Your task to perform on an android device: change the clock display to show seconds Image 0: 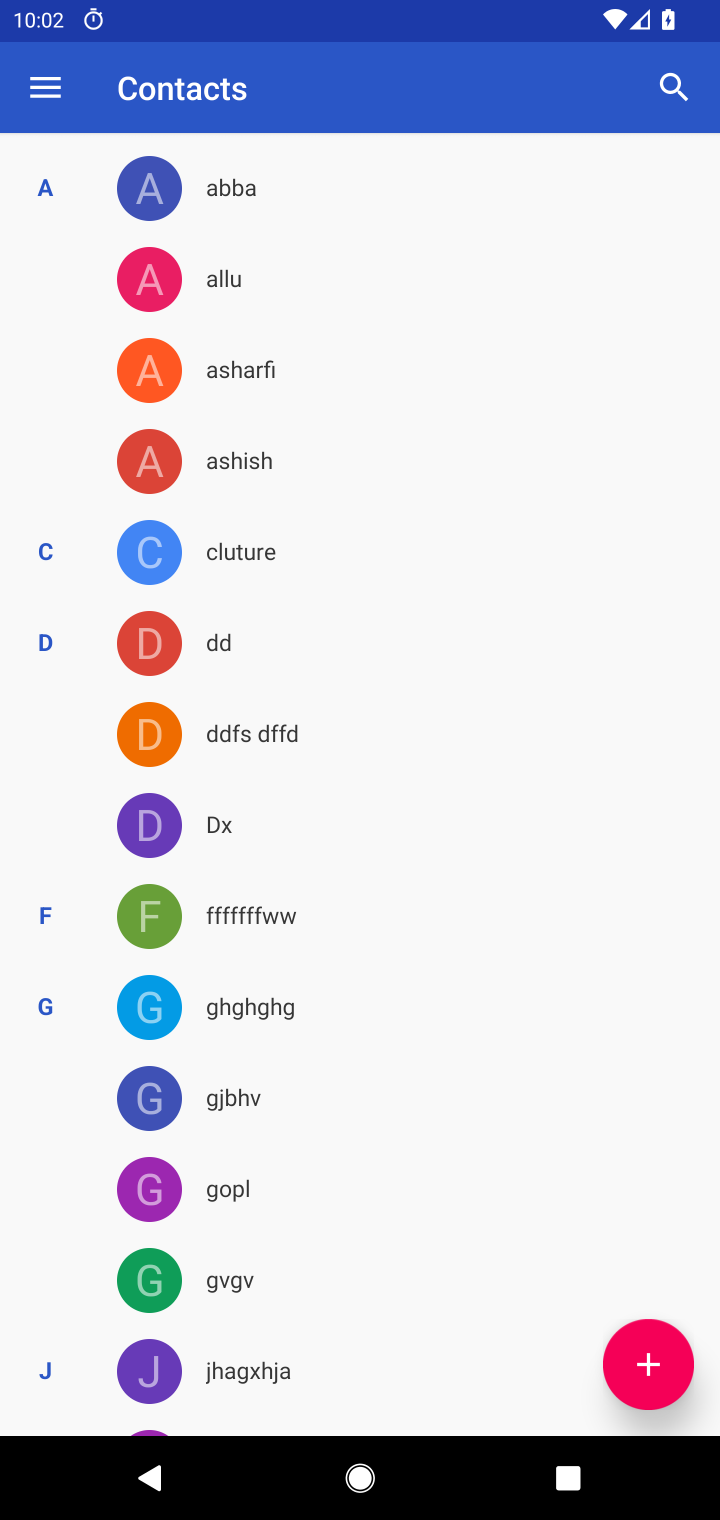
Step 0: press home button
Your task to perform on an android device: change the clock display to show seconds Image 1: 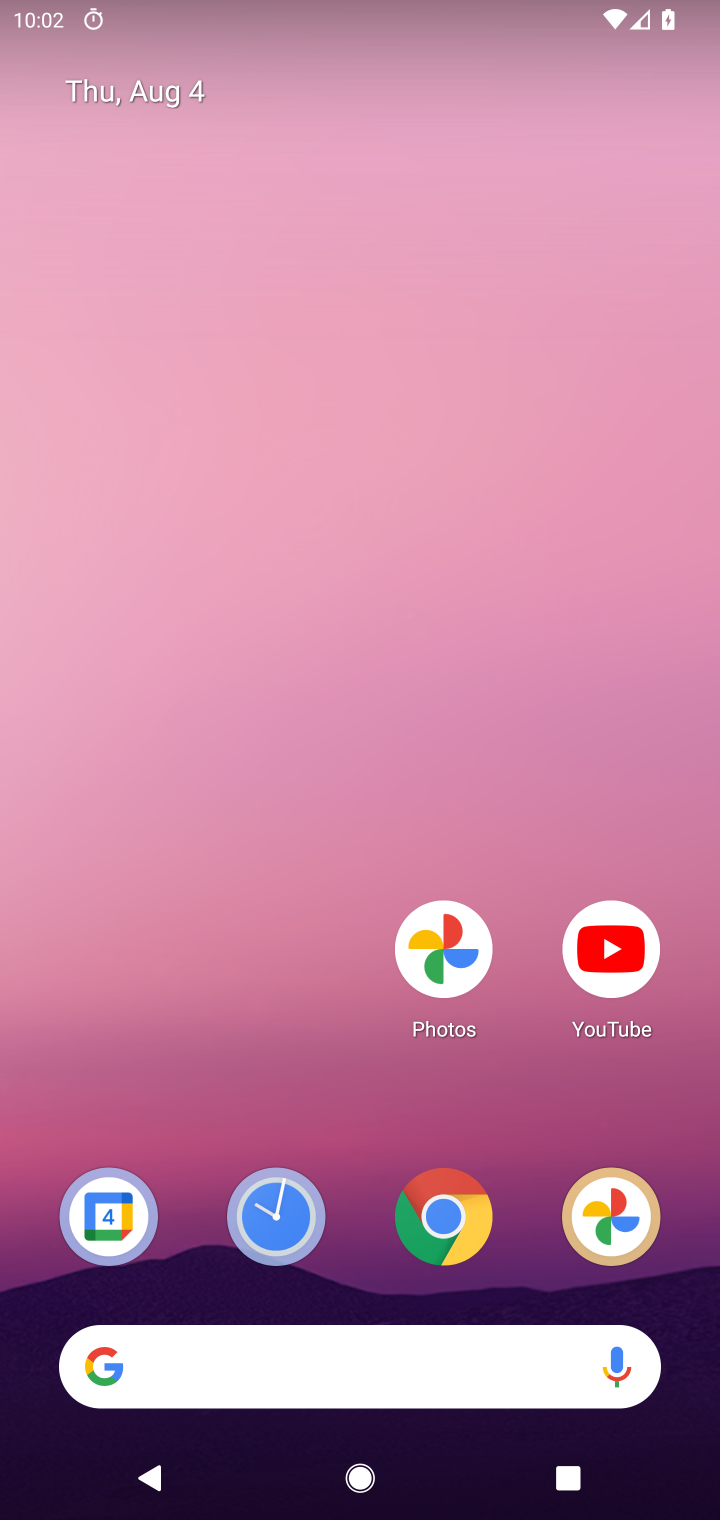
Step 1: drag from (340, 1278) to (340, 188)
Your task to perform on an android device: change the clock display to show seconds Image 2: 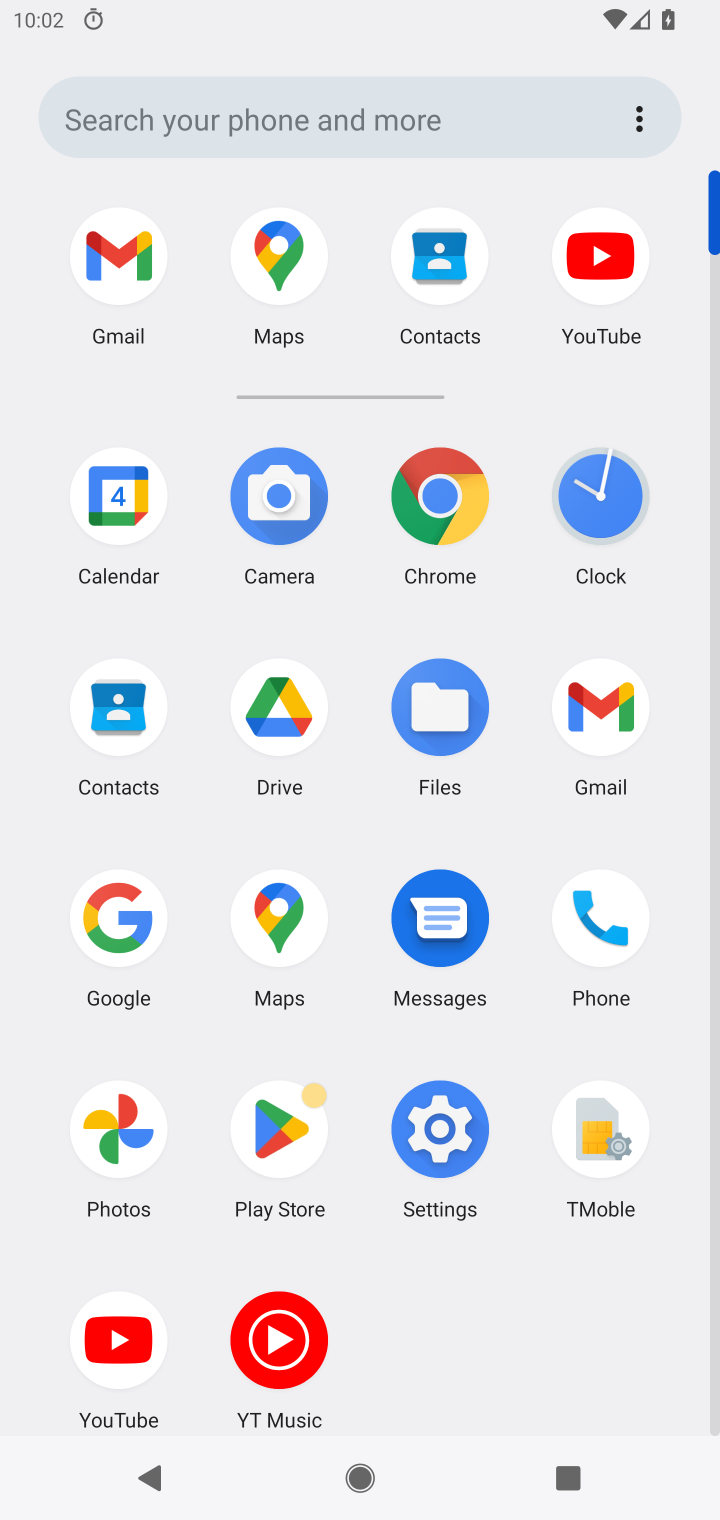
Step 2: click (604, 518)
Your task to perform on an android device: change the clock display to show seconds Image 3: 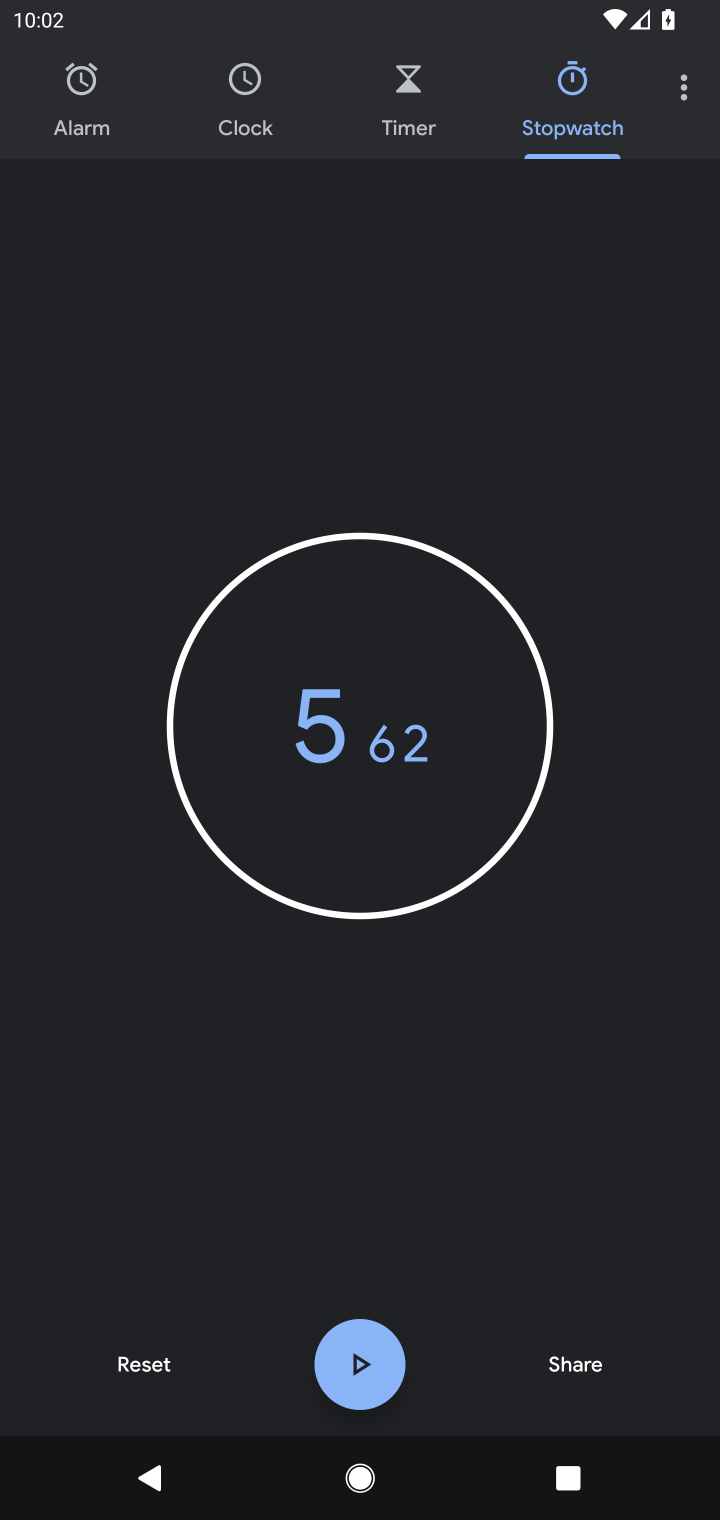
Step 3: click (685, 85)
Your task to perform on an android device: change the clock display to show seconds Image 4: 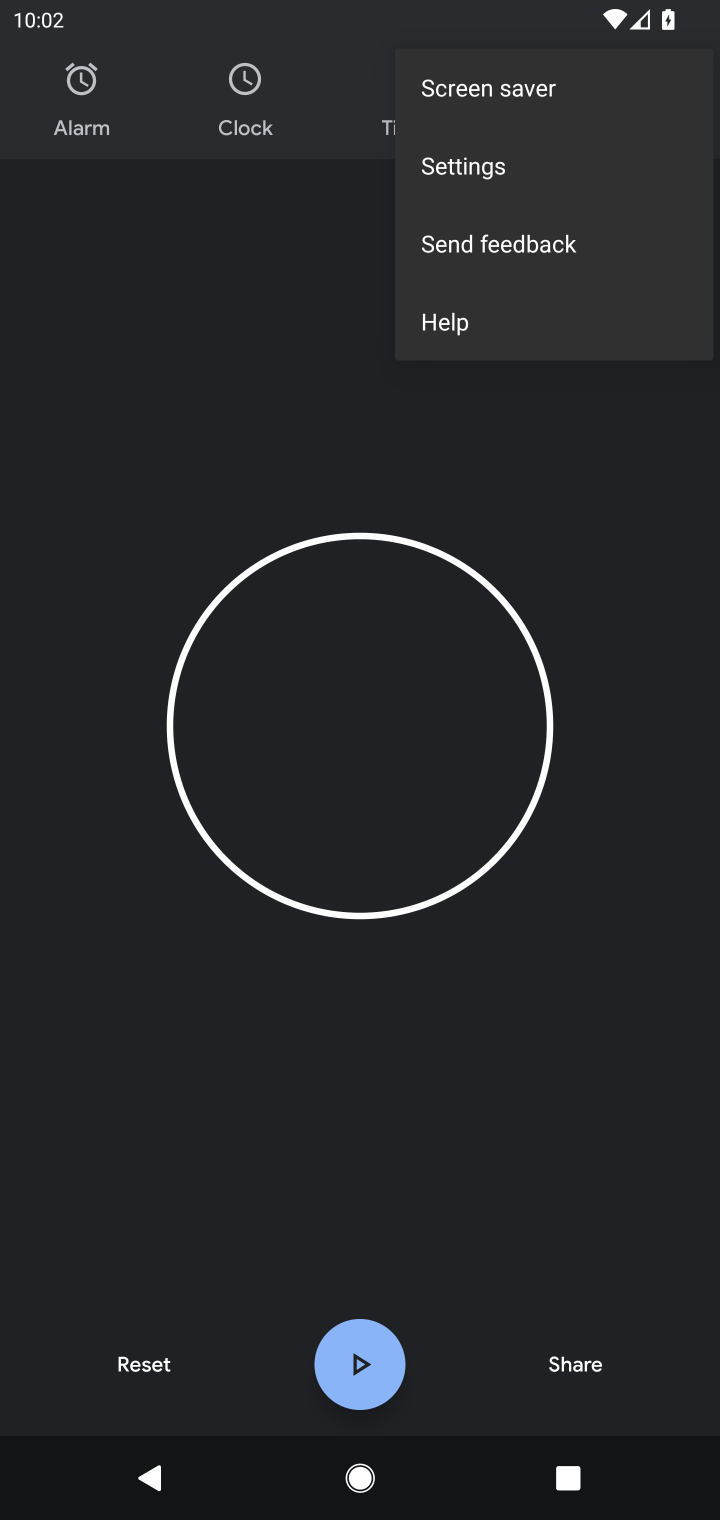
Step 4: click (484, 167)
Your task to perform on an android device: change the clock display to show seconds Image 5: 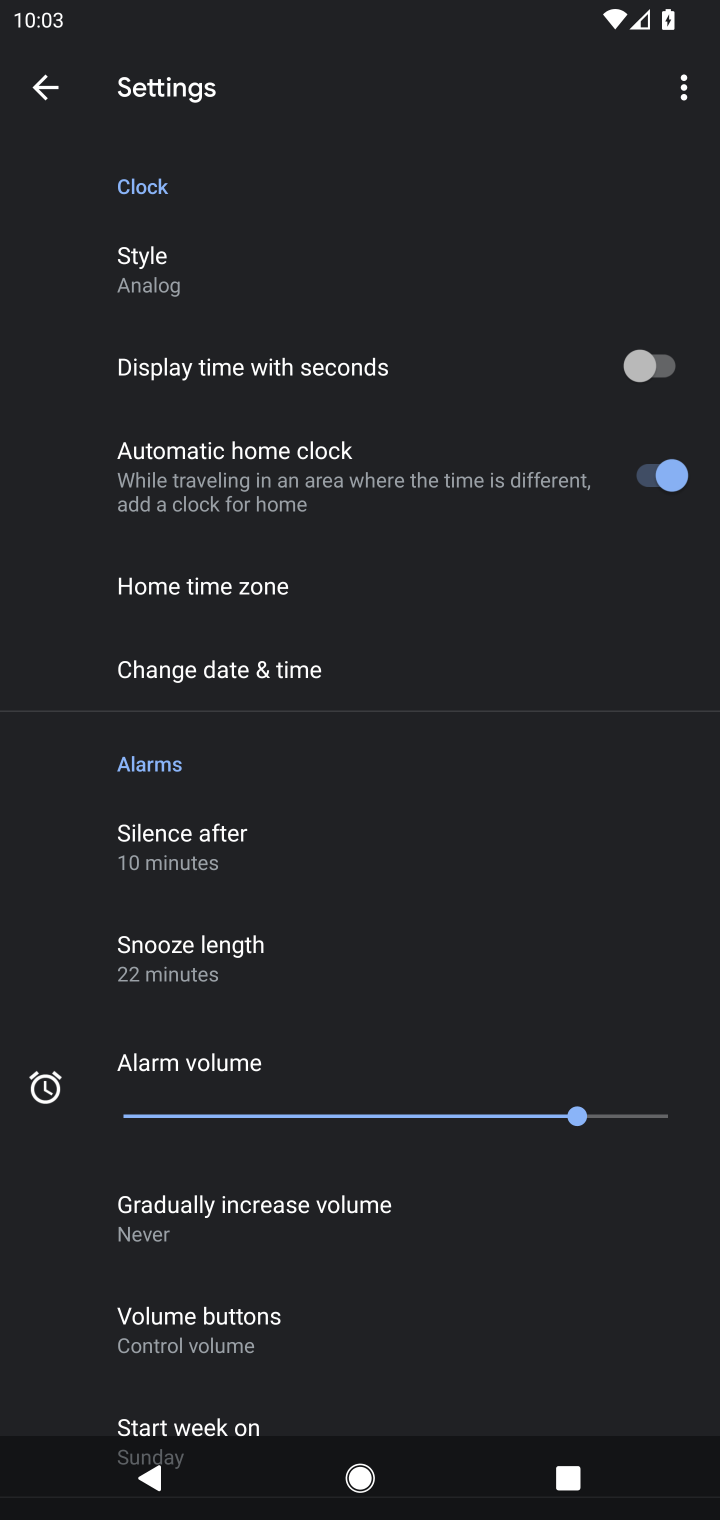
Step 5: click (645, 370)
Your task to perform on an android device: change the clock display to show seconds Image 6: 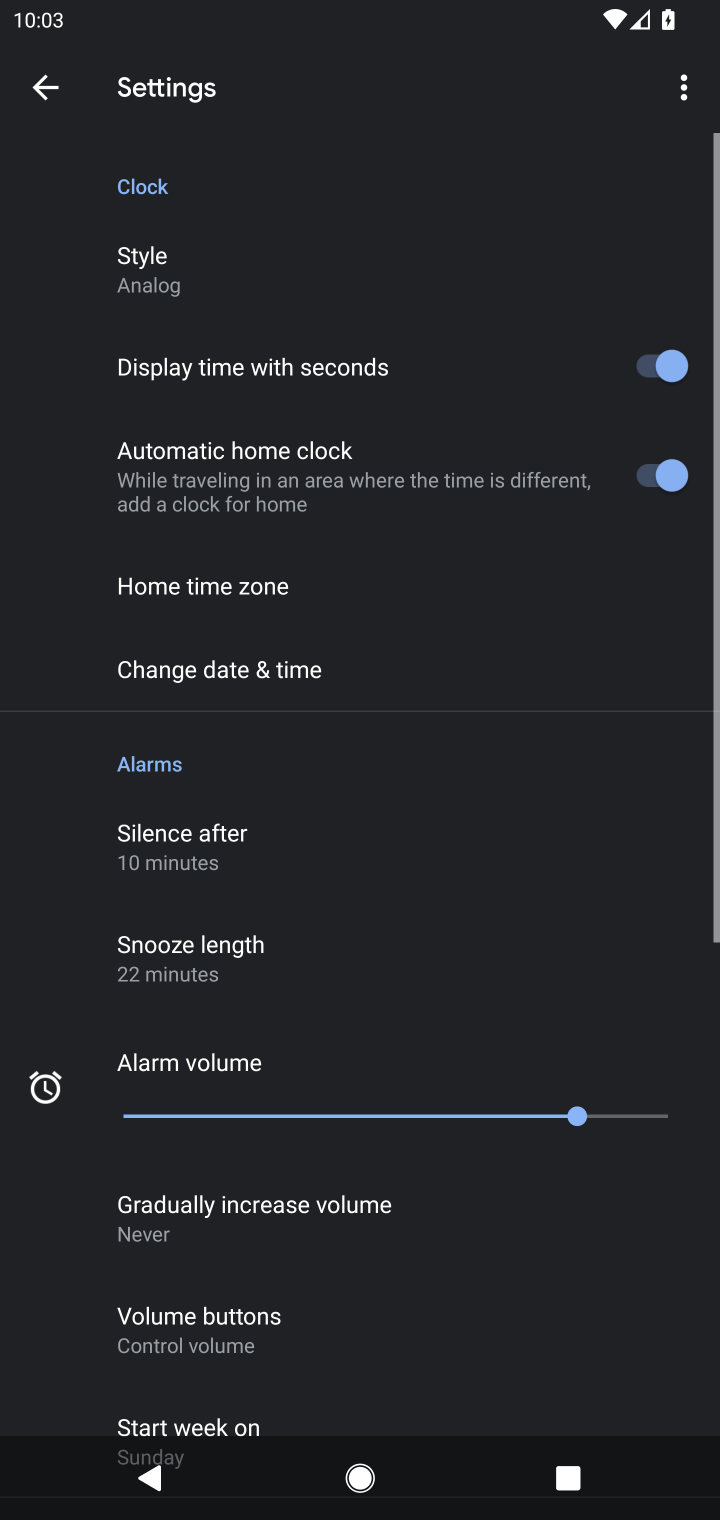
Step 6: task complete